Your task to perform on an android device: all mails in gmail Image 0: 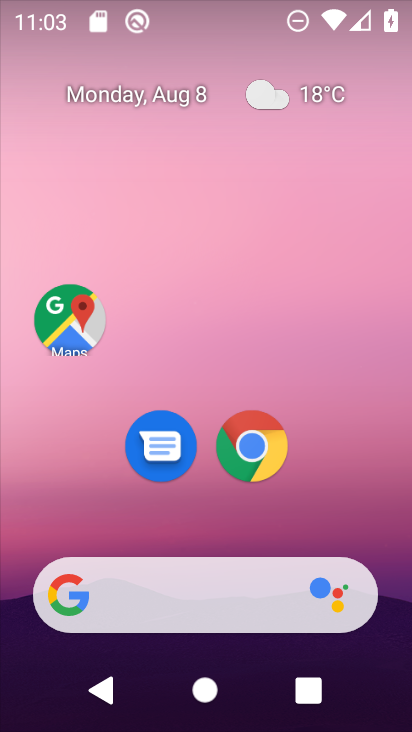
Step 0: drag from (398, 626) to (345, 128)
Your task to perform on an android device: all mails in gmail Image 1: 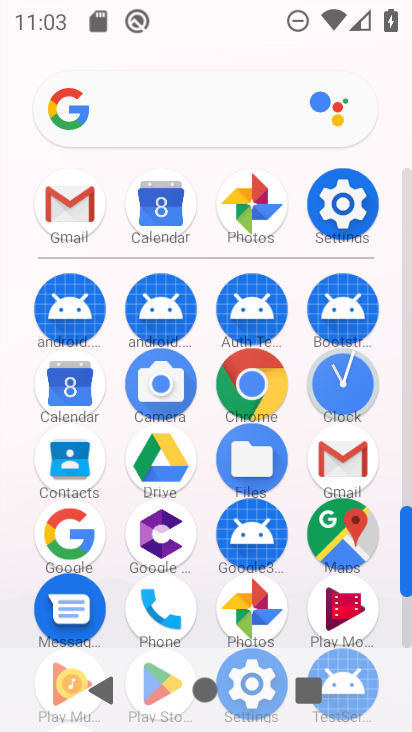
Step 1: click (341, 459)
Your task to perform on an android device: all mails in gmail Image 2: 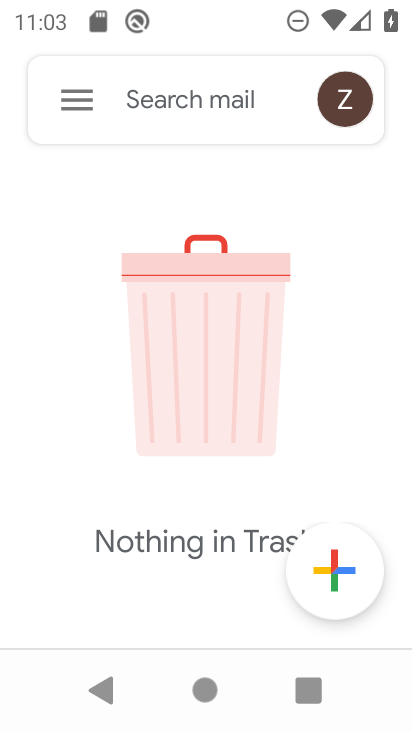
Step 2: click (66, 104)
Your task to perform on an android device: all mails in gmail Image 3: 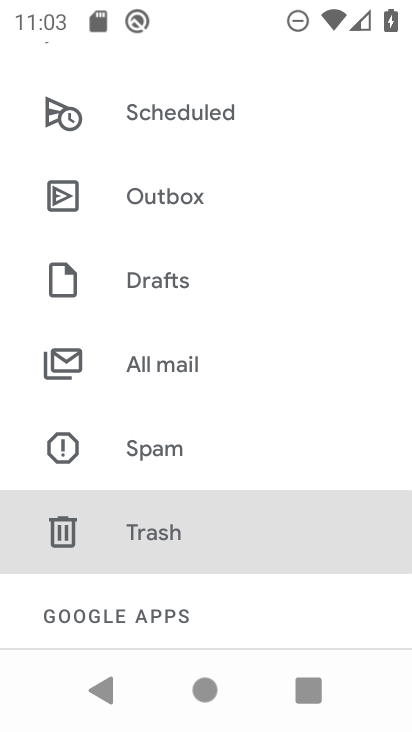
Step 3: click (161, 359)
Your task to perform on an android device: all mails in gmail Image 4: 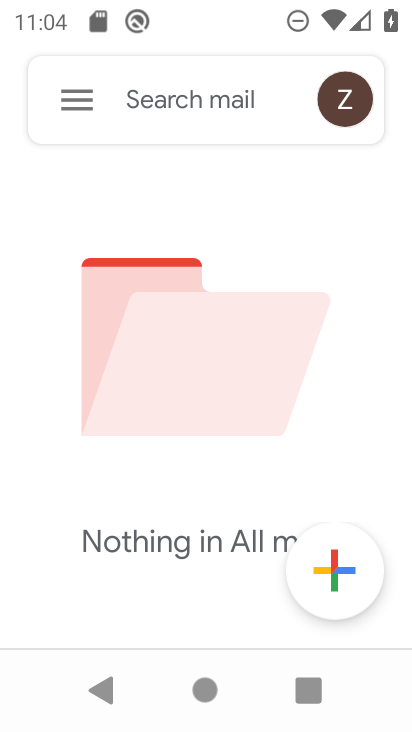
Step 4: task complete